Your task to perform on an android device: visit the assistant section in the google photos Image 0: 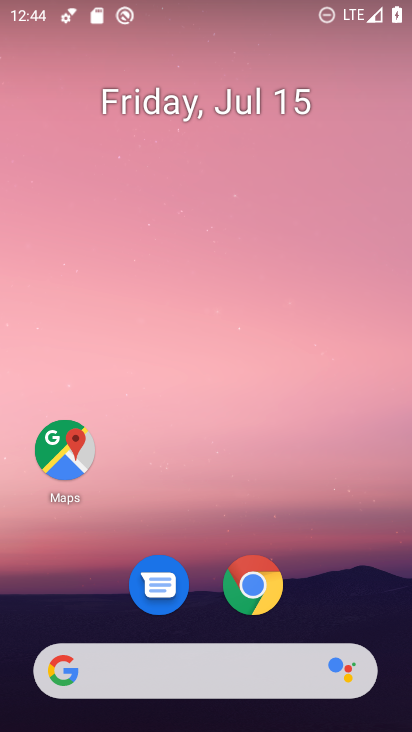
Step 0: drag from (306, 516) to (325, 415)
Your task to perform on an android device: visit the assistant section in the google photos Image 1: 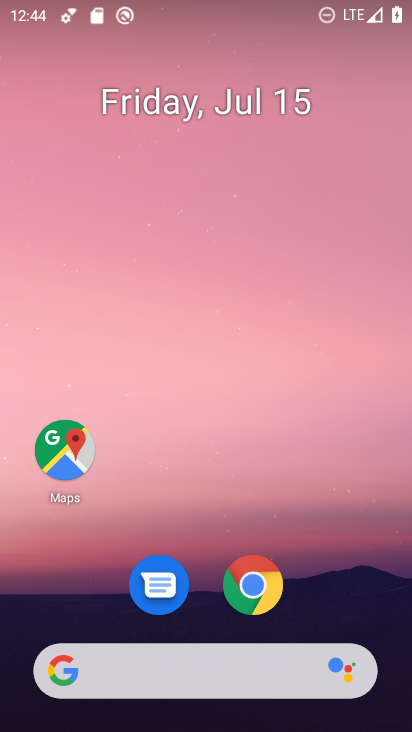
Step 1: drag from (335, 542) to (374, 52)
Your task to perform on an android device: visit the assistant section in the google photos Image 2: 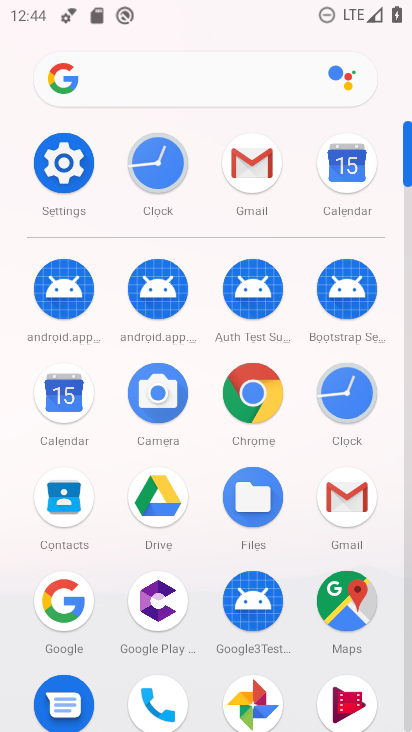
Step 2: click (258, 683)
Your task to perform on an android device: visit the assistant section in the google photos Image 3: 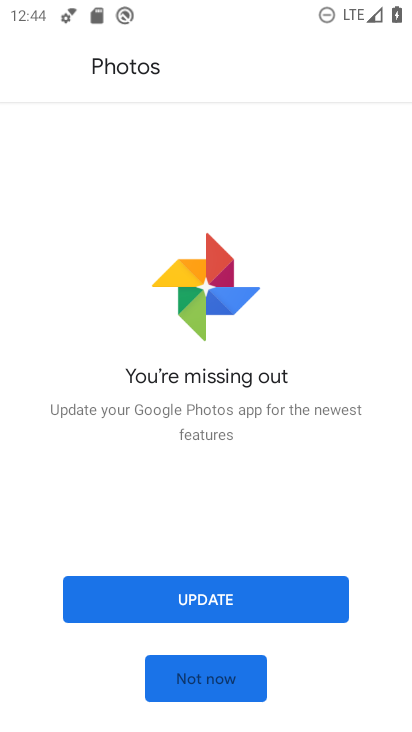
Step 3: click (240, 680)
Your task to perform on an android device: visit the assistant section in the google photos Image 4: 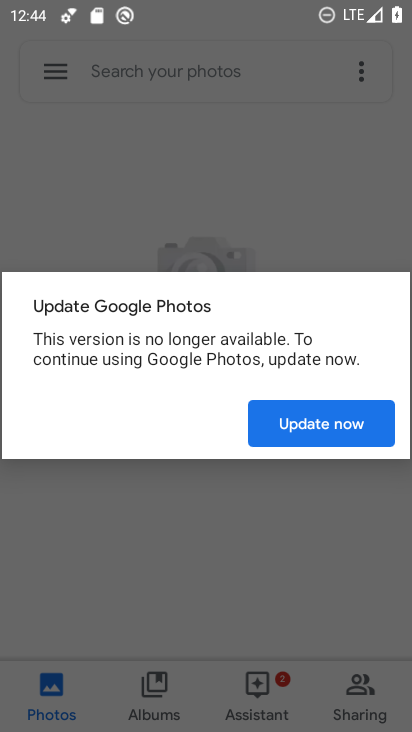
Step 4: click (344, 431)
Your task to perform on an android device: visit the assistant section in the google photos Image 5: 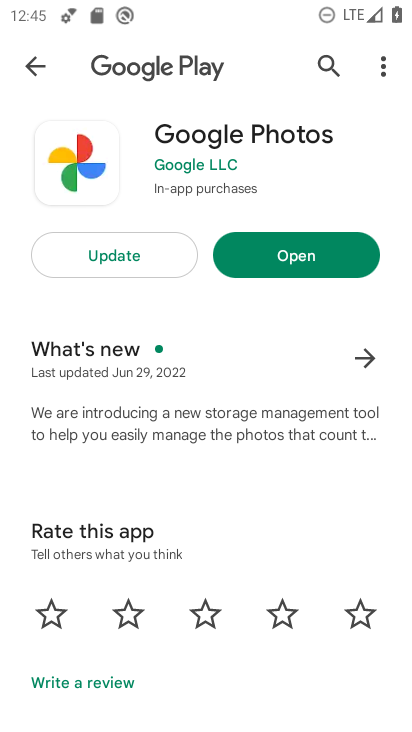
Step 5: click (339, 253)
Your task to perform on an android device: visit the assistant section in the google photos Image 6: 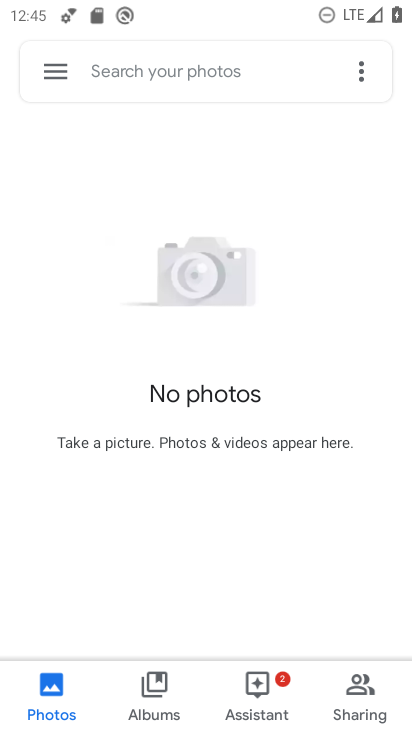
Step 6: click (270, 691)
Your task to perform on an android device: visit the assistant section in the google photos Image 7: 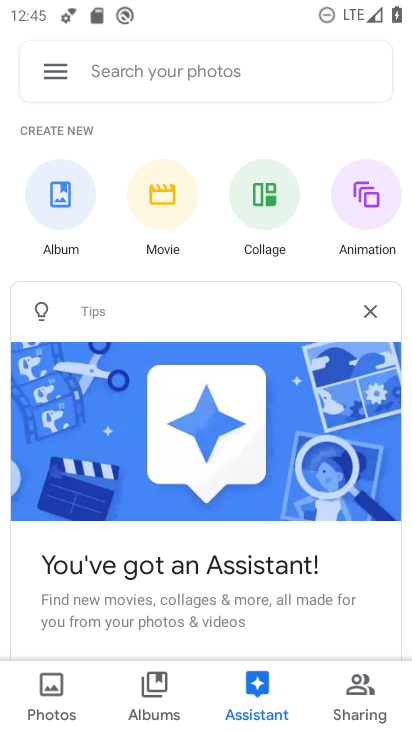
Step 7: task complete